Your task to perform on an android device: What's the weather going to be tomorrow? Image 0: 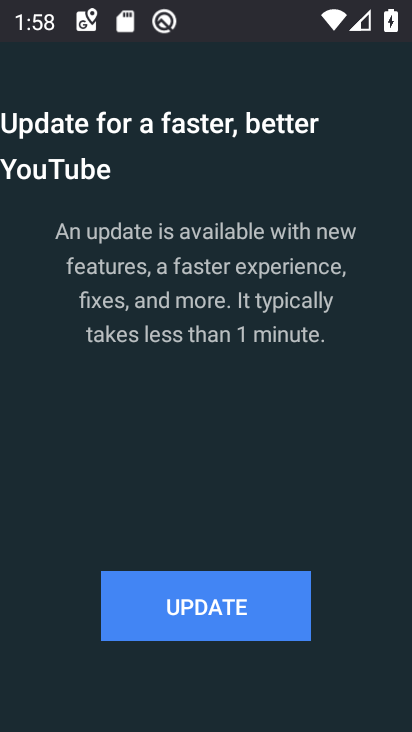
Step 0: press home button
Your task to perform on an android device: What's the weather going to be tomorrow? Image 1: 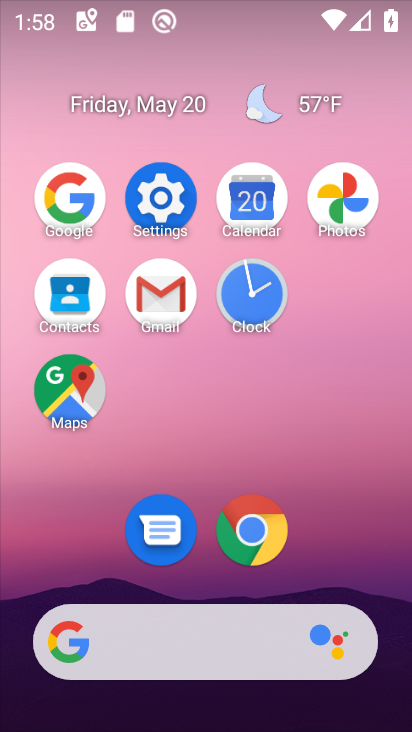
Step 1: click (77, 201)
Your task to perform on an android device: What's the weather going to be tomorrow? Image 2: 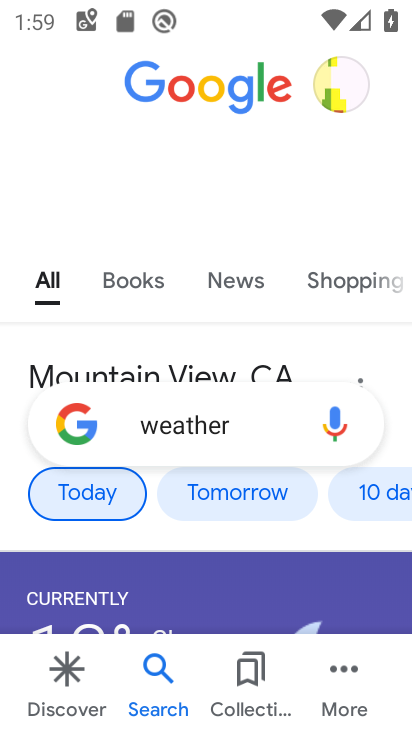
Step 2: click (245, 483)
Your task to perform on an android device: What's the weather going to be tomorrow? Image 3: 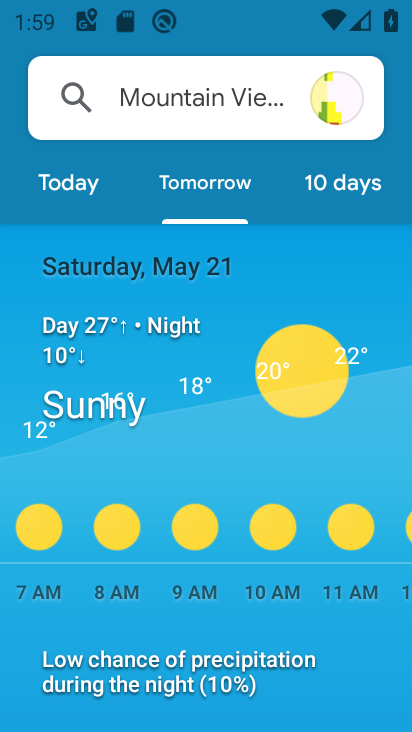
Step 3: task complete